Your task to perform on an android device: toggle sleep mode Image 0: 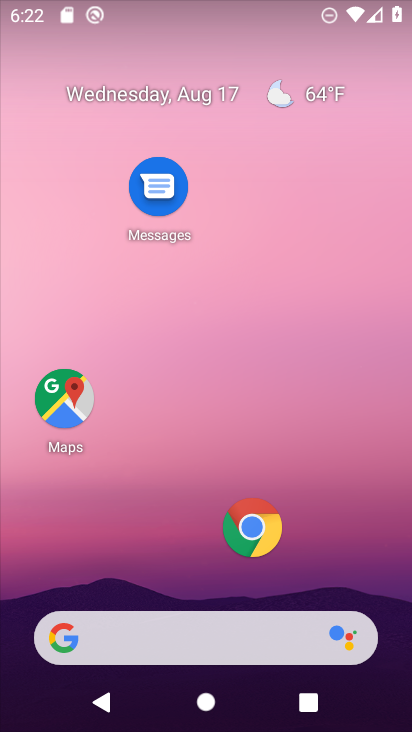
Step 0: drag from (215, 577) to (215, 265)
Your task to perform on an android device: toggle sleep mode Image 1: 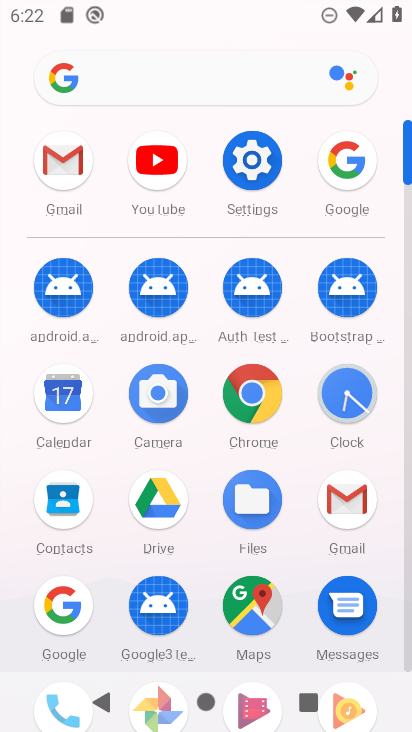
Step 1: click (243, 168)
Your task to perform on an android device: toggle sleep mode Image 2: 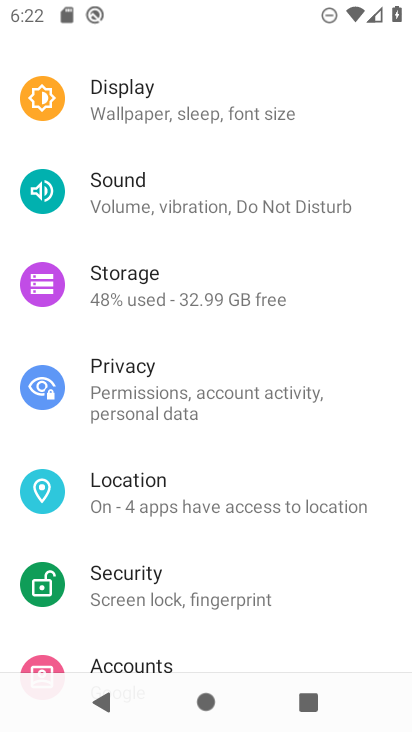
Step 2: click (214, 106)
Your task to perform on an android device: toggle sleep mode Image 3: 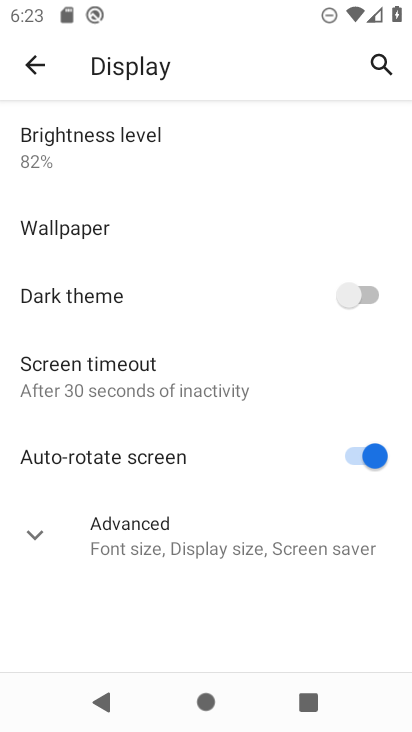
Step 3: click (123, 525)
Your task to perform on an android device: toggle sleep mode Image 4: 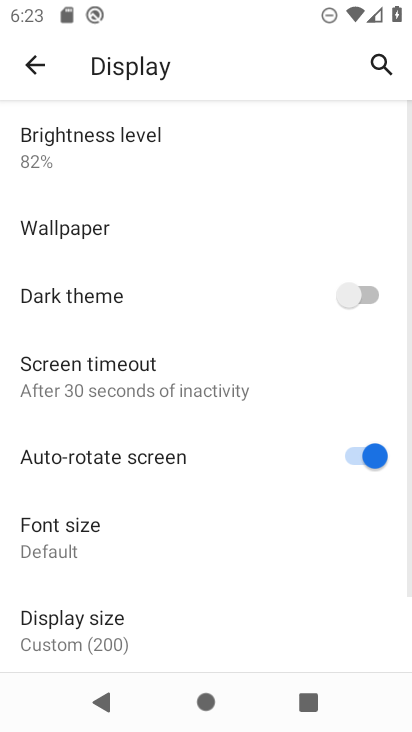
Step 4: drag from (105, 630) to (101, 359)
Your task to perform on an android device: toggle sleep mode Image 5: 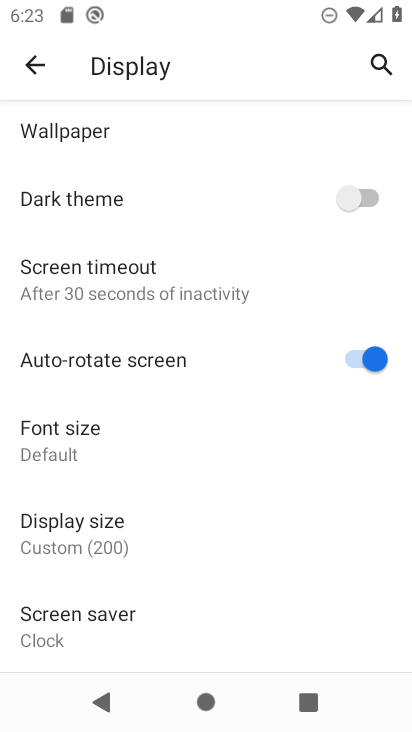
Step 5: drag from (79, 135) to (63, 581)
Your task to perform on an android device: toggle sleep mode Image 6: 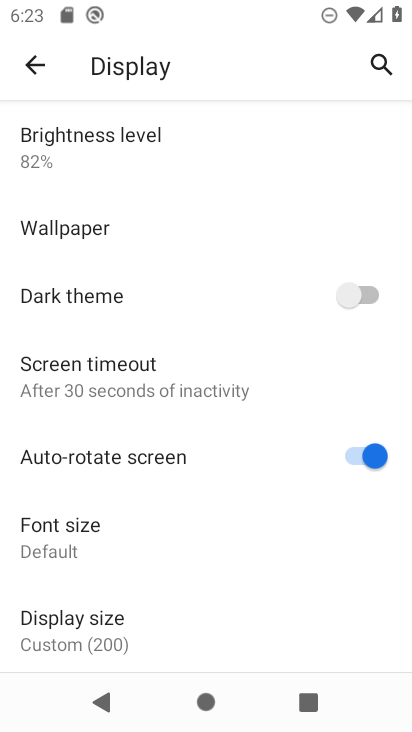
Step 6: click (65, 380)
Your task to perform on an android device: toggle sleep mode Image 7: 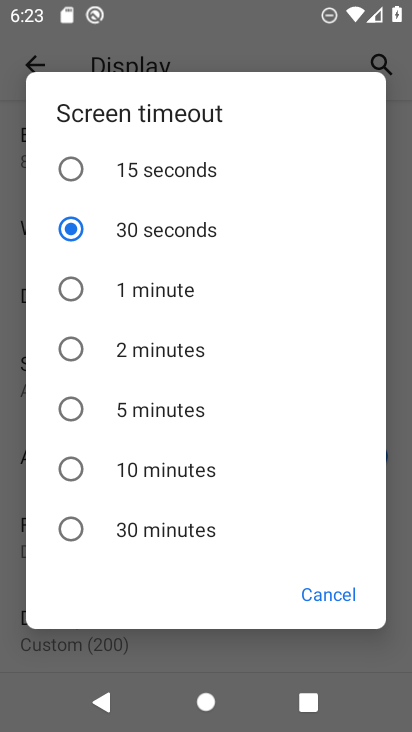
Step 7: click (140, 348)
Your task to perform on an android device: toggle sleep mode Image 8: 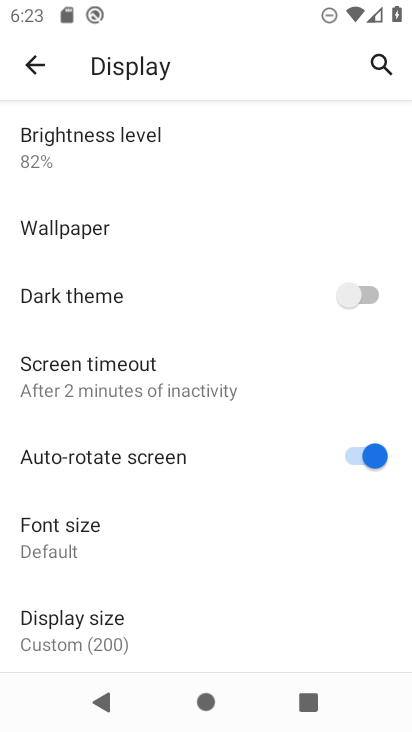
Step 8: task complete